Your task to perform on an android device: Open display settings Image 0: 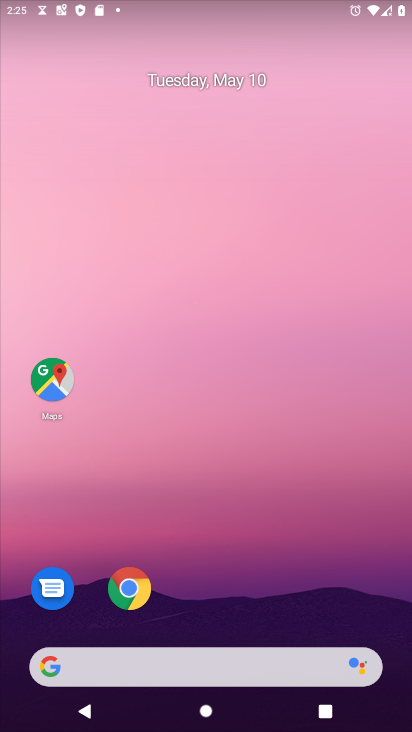
Step 0: drag from (287, 569) to (254, 221)
Your task to perform on an android device: Open display settings Image 1: 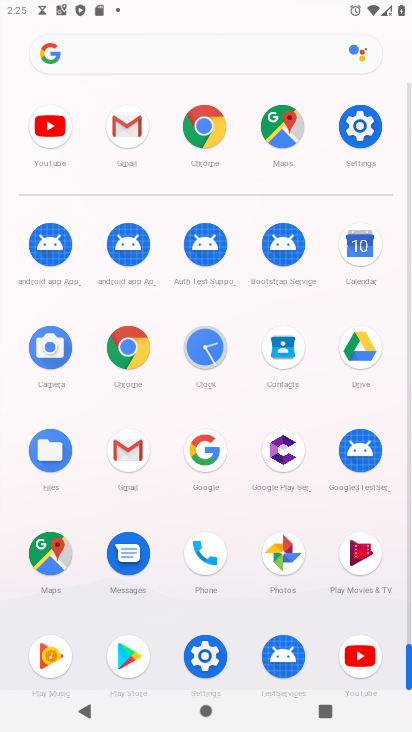
Step 1: click (360, 124)
Your task to perform on an android device: Open display settings Image 2: 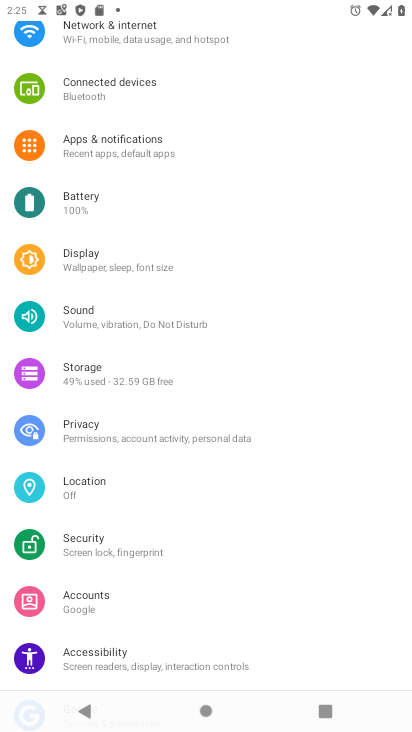
Step 2: click (135, 256)
Your task to perform on an android device: Open display settings Image 3: 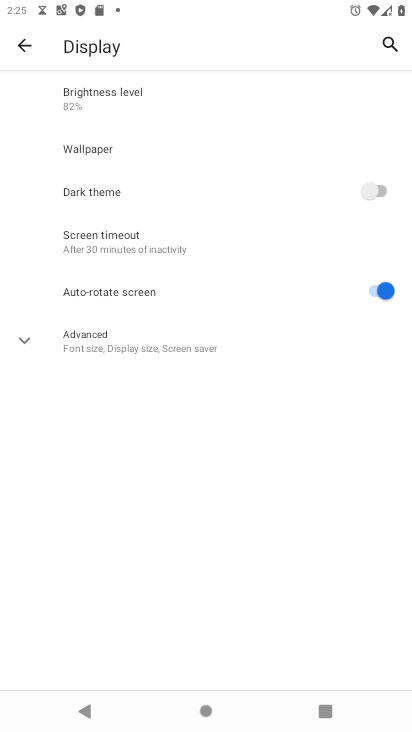
Step 3: task complete